Your task to perform on an android device: What's the weather today? Image 0: 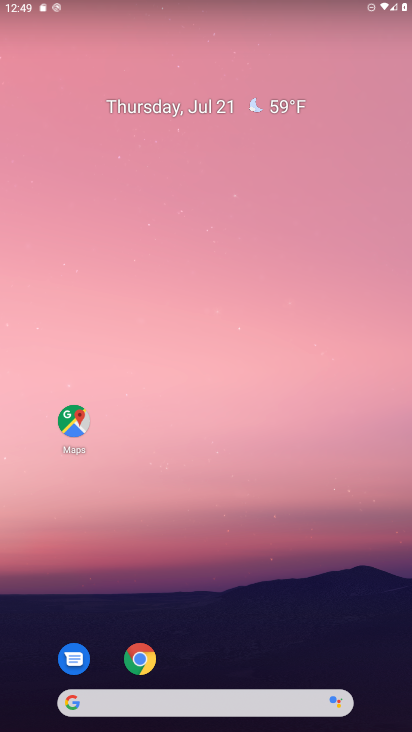
Step 0: click (101, 701)
Your task to perform on an android device: What's the weather today? Image 1: 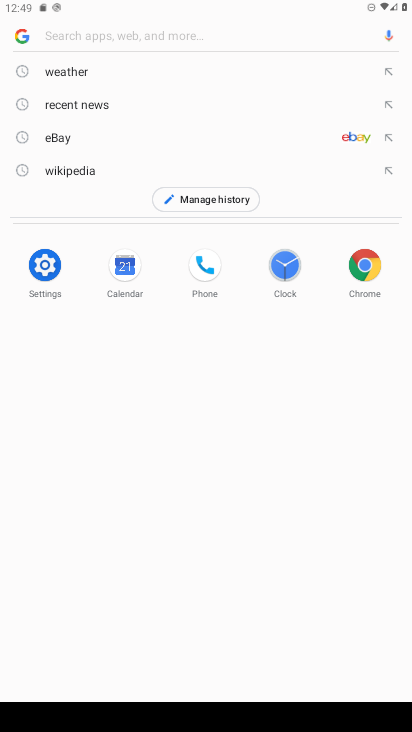
Step 1: click (98, 71)
Your task to perform on an android device: What's the weather today? Image 2: 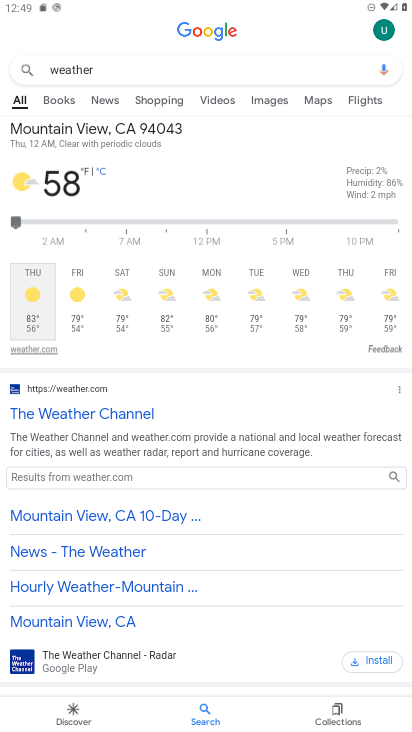
Step 2: task complete